Your task to perform on an android device: Open sound settings Image 0: 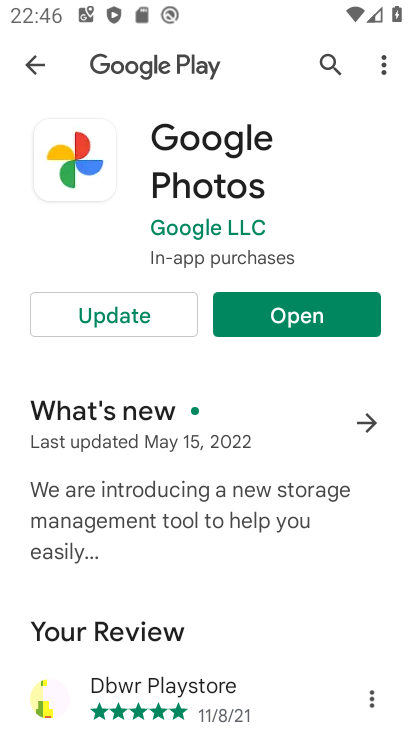
Step 0: press home button
Your task to perform on an android device: Open sound settings Image 1: 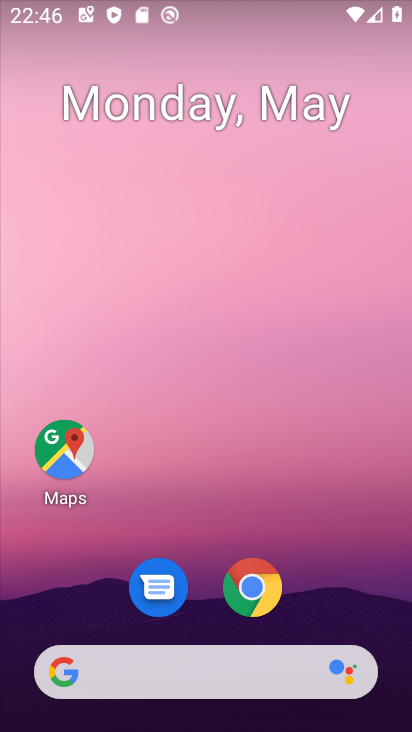
Step 1: drag from (192, 616) to (209, 5)
Your task to perform on an android device: Open sound settings Image 2: 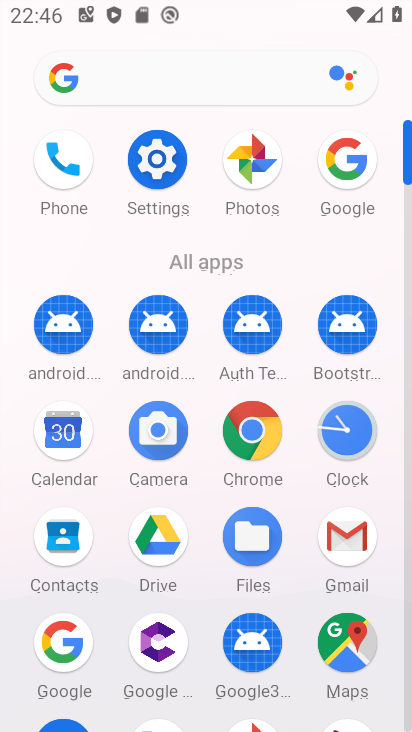
Step 2: click (172, 172)
Your task to perform on an android device: Open sound settings Image 3: 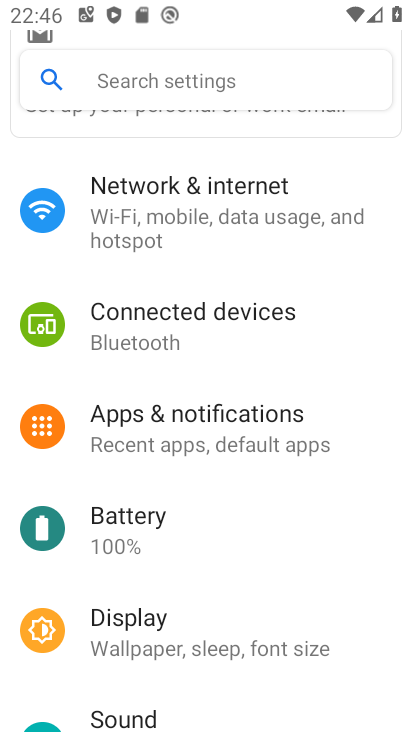
Step 3: click (118, 691)
Your task to perform on an android device: Open sound settings Image 4: 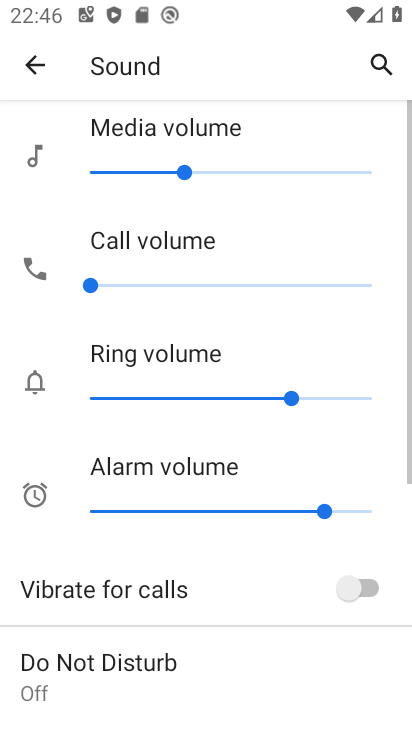
Step 4: task complete